Your task to perform on an android device: open a new tab in the chrome app Image 0: 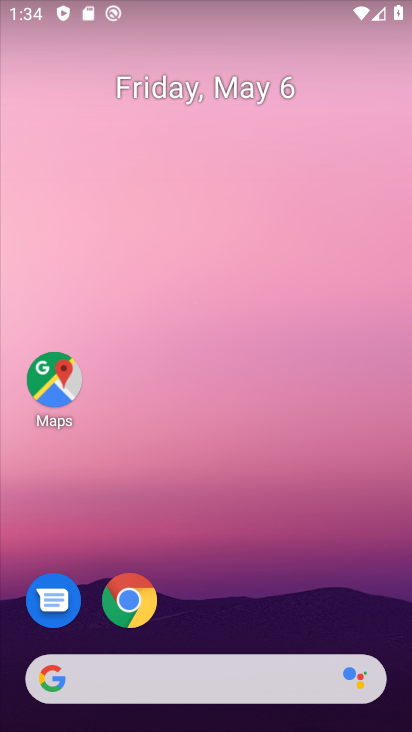
Step 0: click (113, 608)
Your task to perform on an android device: open a new tab in the chrome app Image 1: 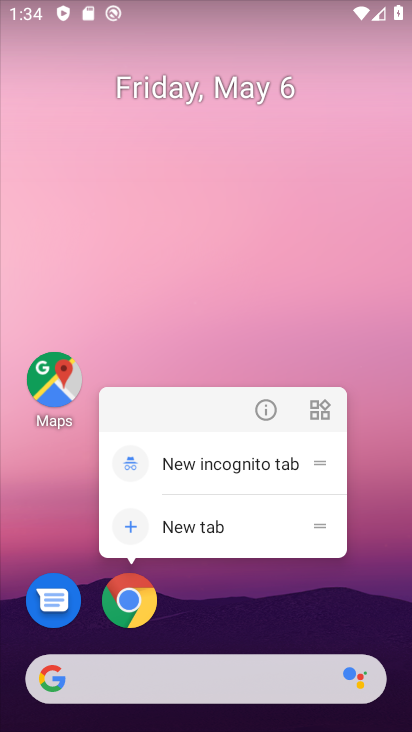
Step 1: click (122, 603)
Your task to perform on an android device: open a new tab in the chrome app Image 2: 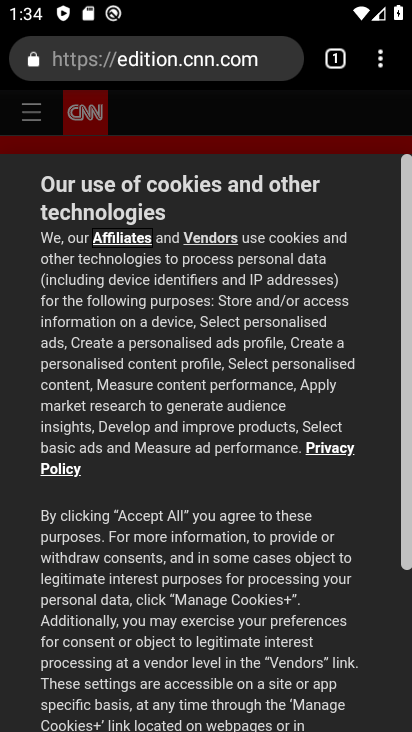
Step 2: click (375, 68)
Your task to perform on an android device: open a new tab in the chrome app Image 3: 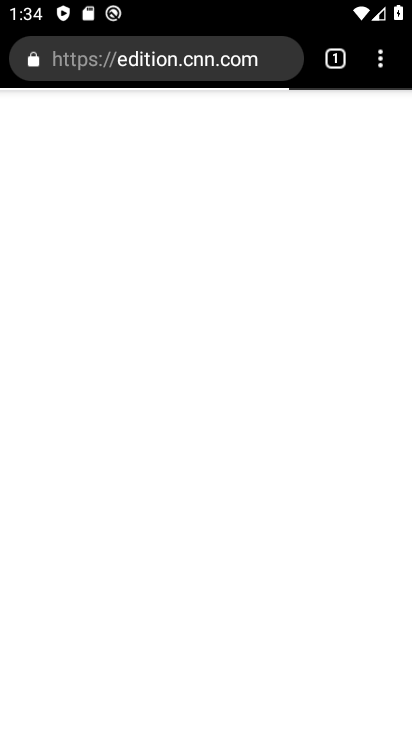
Step 3: click (375, 69)
Your task to perform on an android device: open a new tab in the chrome app Image 4: 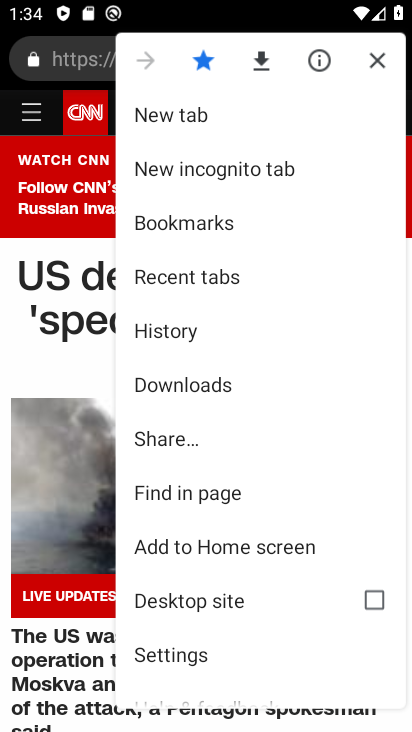
Step 4: click (258, 111)
Your task to perform on an android device: open a new tab in the chrome app Image 5: 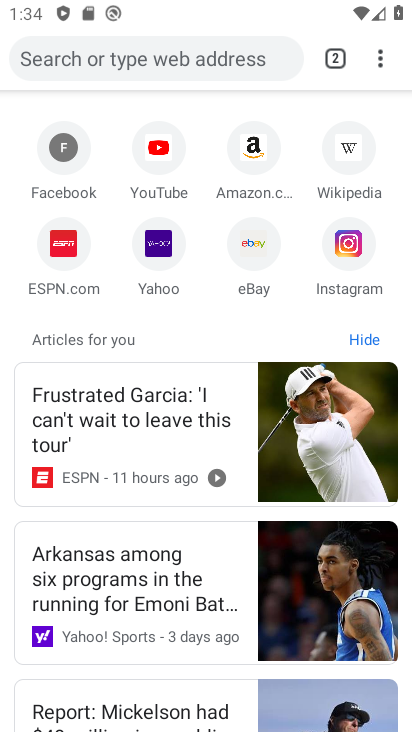
Step 5: task complete